Your task to perform on an android device: move a message to another label in the gmail app Image 0: 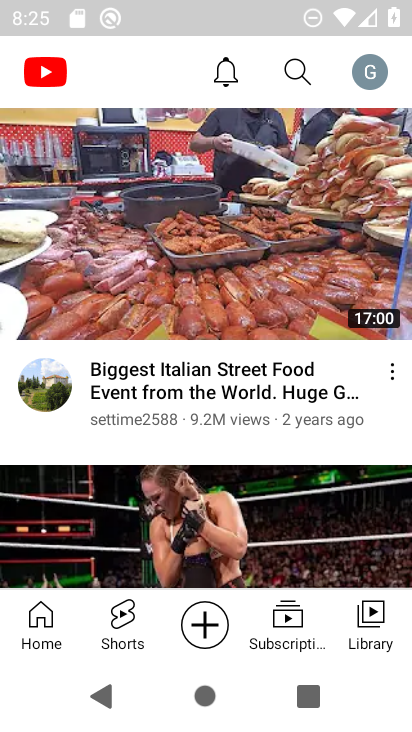
Step 0: press home button
Your task to perform on an android device: move a message to another label in the gmail app Image 1: 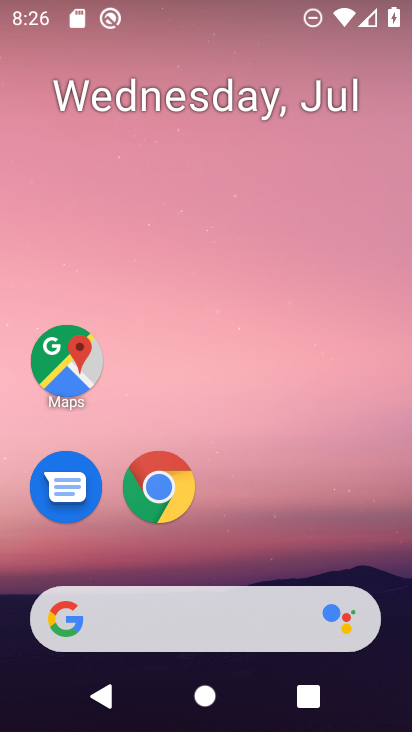
Step 1: drag from (382, 546) to (383, 115)
Your task to perform on an android device: move a message to another label in the gmail app Image 2: 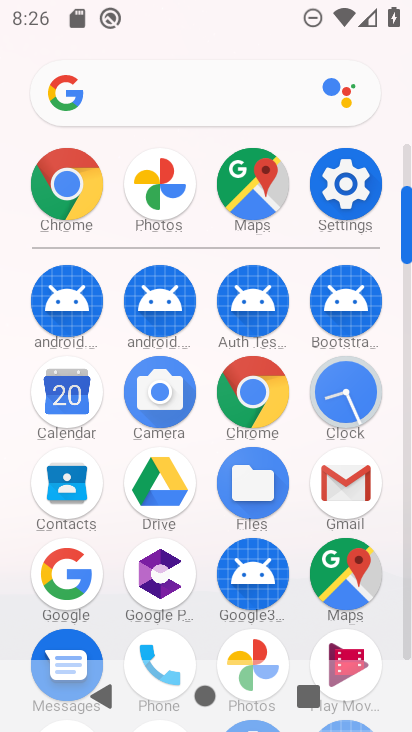
Step 2: click (346, 485)
Your task to perform on an android device: move a message to another label in the gmail app Image 3: 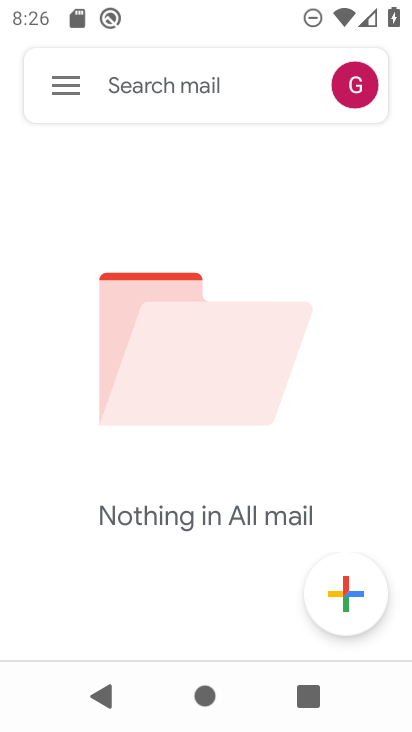
Step 3: click (68, 88)
Your task to perform on an android device: move a message to another label in the gmail app Image 4: 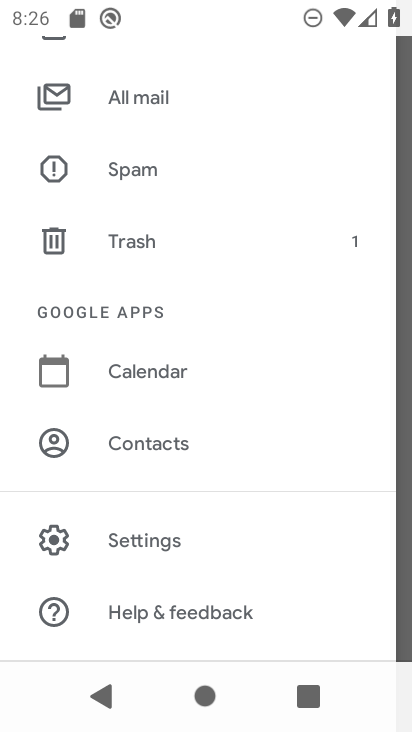
Step 4: drag from (297, 167) to (286, 368)
Your task to perform on an android device: move a message to another label in the gmail app Image 5: 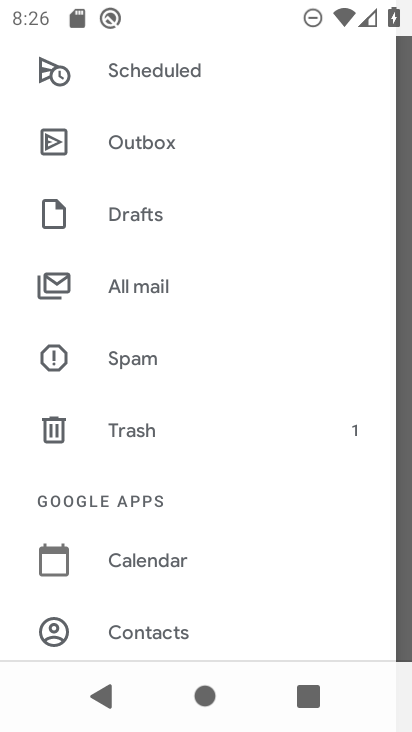
Step 5: drag from (305, 241) to (312, 366)
Your task to perform on an android device: move a message to another label in the gmail app Image 6: 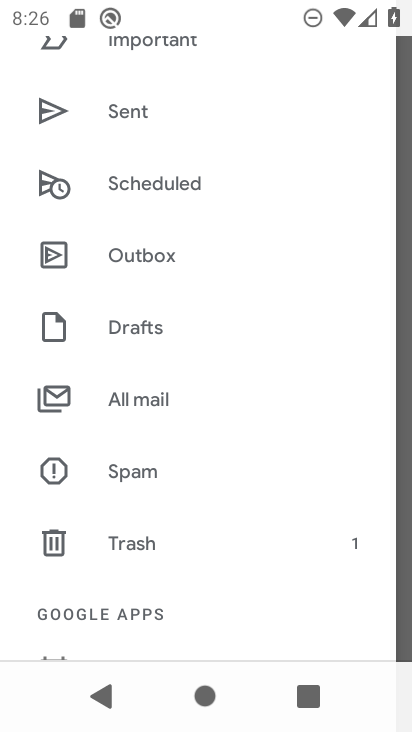
Step 6: drag from (301, 216) to (317, 376)
Your task to perform on an android device: move a message to another label in the gmail app Image 7: 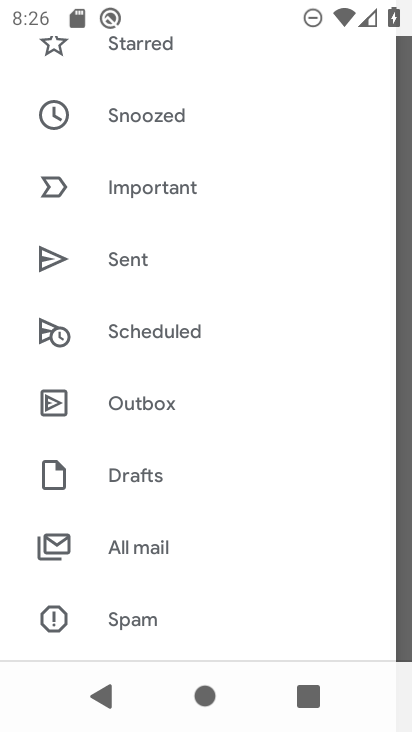
Step 7: drag from (283, 126) to (309, 321)
Your task to perform on an android device: move a message to another label in the gmail app Image 8: 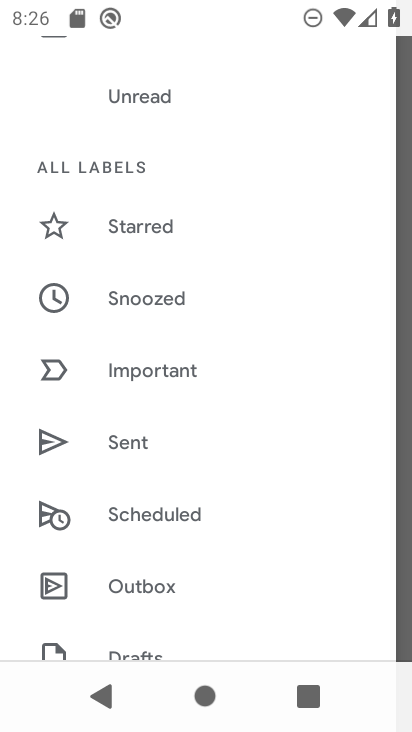
Step 8: drag from (264, 105) to (285, 308)
Your task to perform on an android device: move a message to another label in the gmail app Image 9: 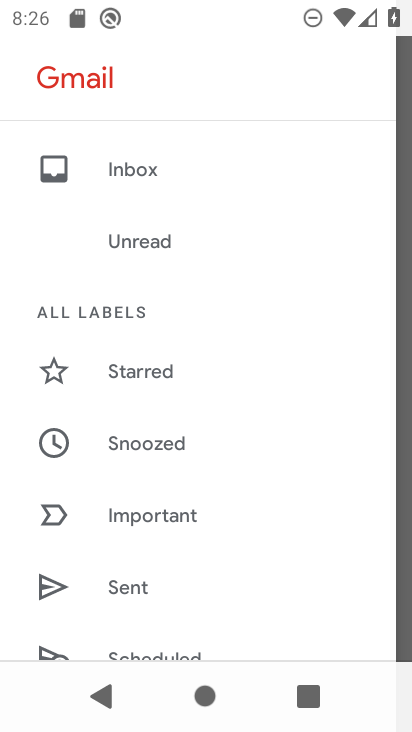
Step 9: click (174, 185)
Your task to perform on an android device: move a message to another label in the gmail app Image 10: 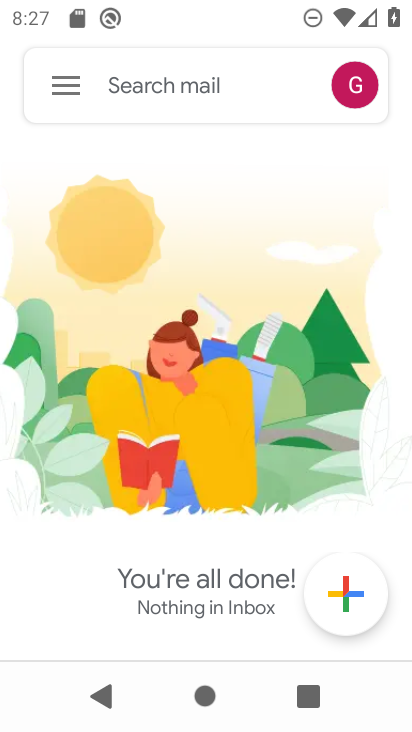
Step 10: task complete